Your task to perform on an android device: add a contact in the contacts app Image 0: 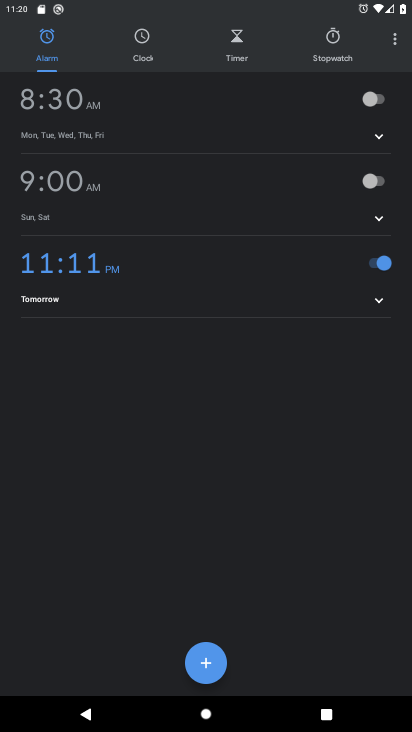
Step 0: press home button
Your task to perform on an android device: add a contact in the contacts app Image 1: 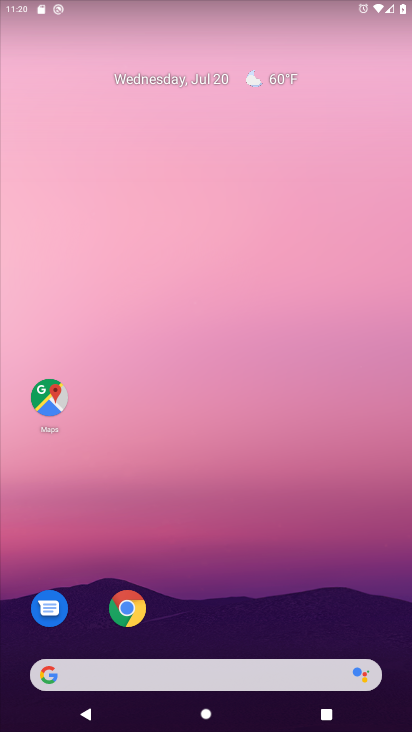
Step 1: drag from (244, 620) to (189, 146)
Your task to perform on an android device: add a contact in the contacts app Image 2: 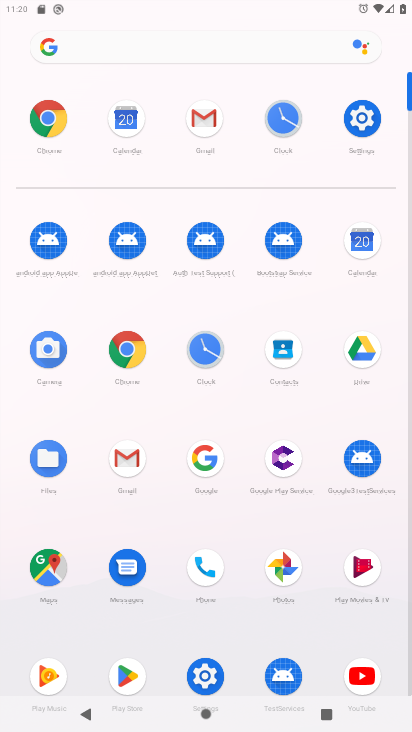
Step 2: click (271, 359)
Your task to perform on an android device: add a contact in the contacts app Image 3: 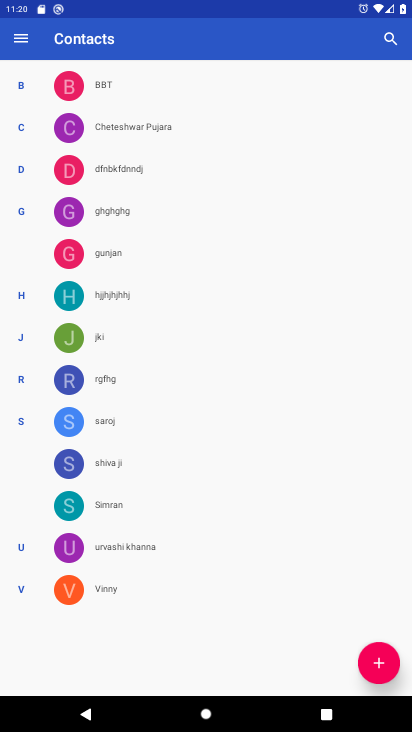
Step 3: click (382, 662)
Your task to perform on an android device: add a contact in the contacts app Image 4: 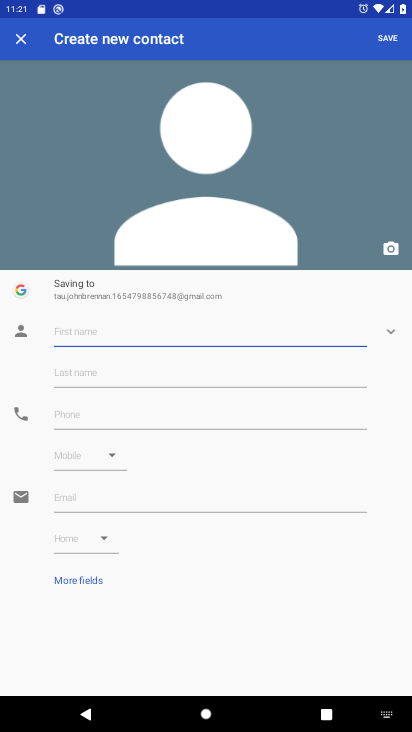
Step 4: type "vghbnj"
Your task to perform on an android device: add a contact in the contacts app Image 5: 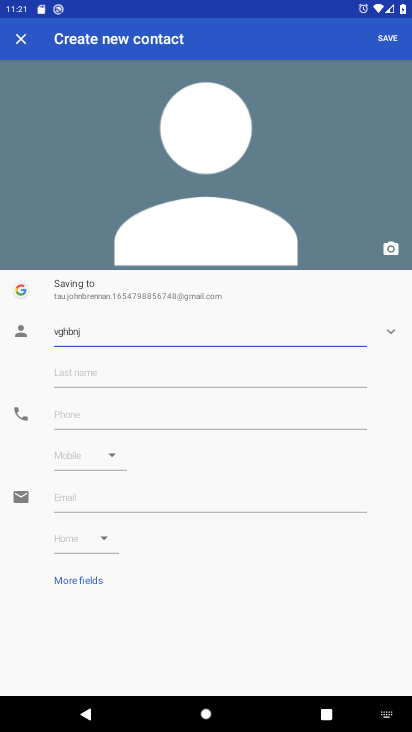
Step 5: click (140, 421)
Your task to perform on an android device: add a contact in the contacts app Image 6: 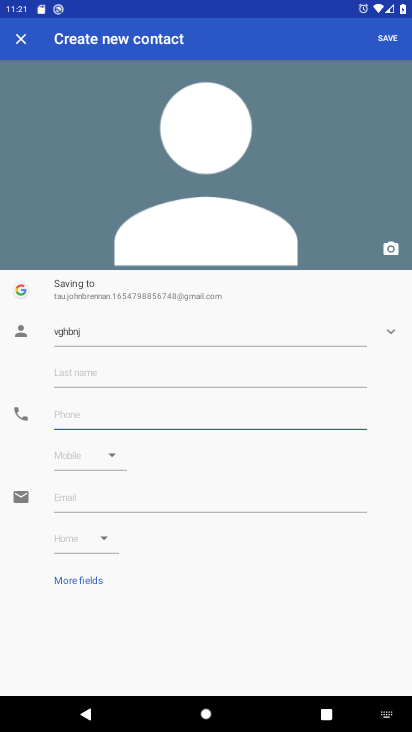
Step 6: type "8907654321"
Your task to perform on an android device: add a contact in the contacts app Image 7: 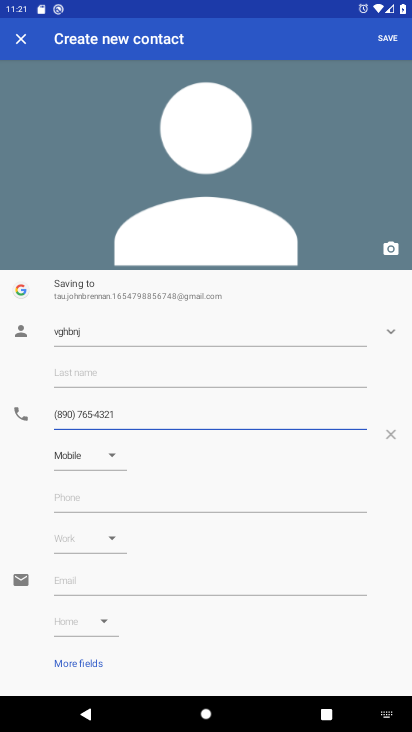
Step 7: click (391, 37)
Your task to perform on an android device: add a contact in the contacts app Image 8: 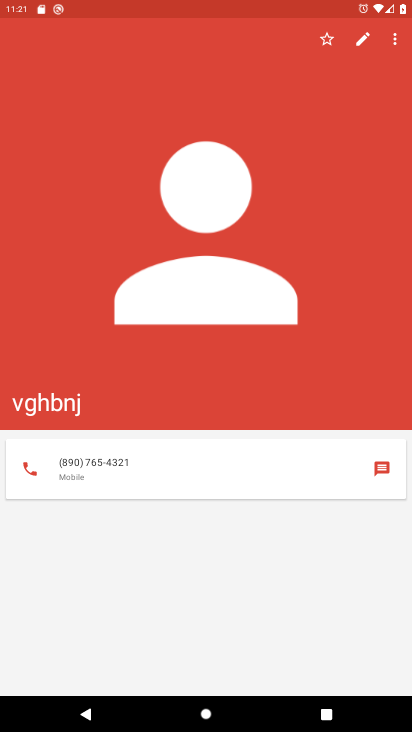
Step 8: task complete